Your task to perform on an android device: read, delete, or share a saved page in the chrome app Image 0: 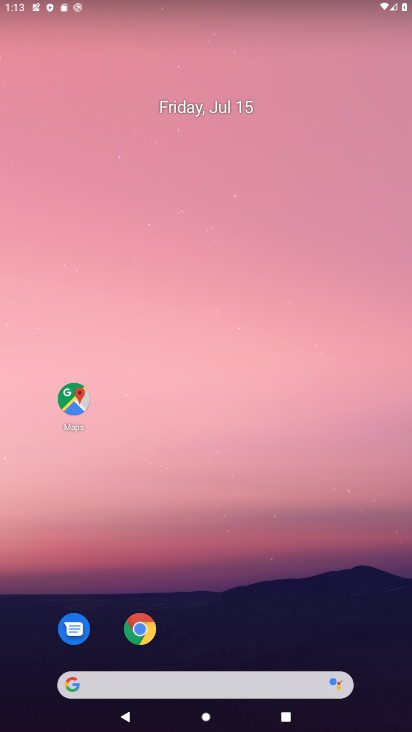
Step 0: drag from (365, 596) to (326, 104)
Your task to perform on an android device: read, delete, or share a saved page in the chrome app Image 1: 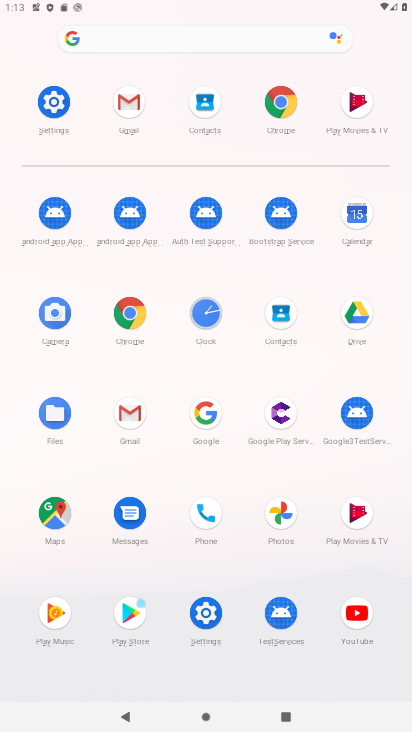
Step 1: click (287, 106)
Your task to perform on an android device: read, delete, or share a saved page in the chrome app Image 2: 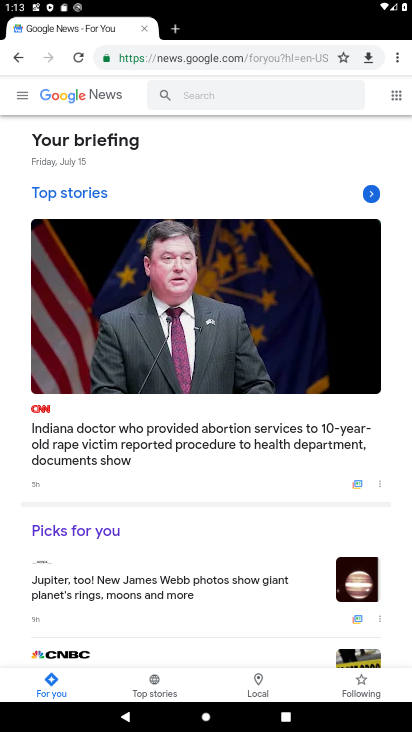
Step 2: task complete